Your task to perform on an android device: How much does a 2 bedroom apartment rent for in Houston? Image 0: 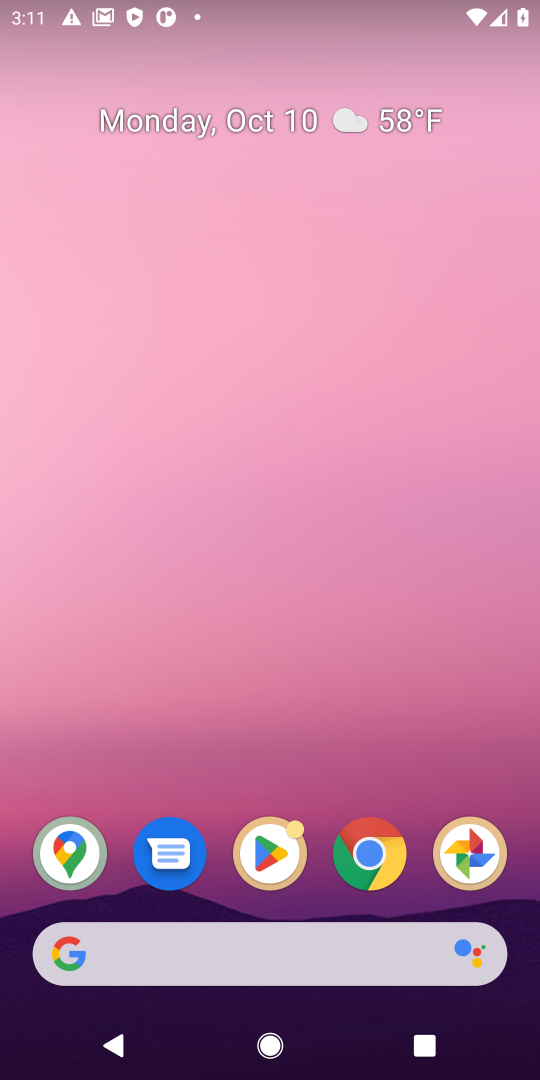
Step 0: click (260, 357)
Your task to perform on an android device: How much does a 2 bedroom apartment rent for in Houston? Image 1: 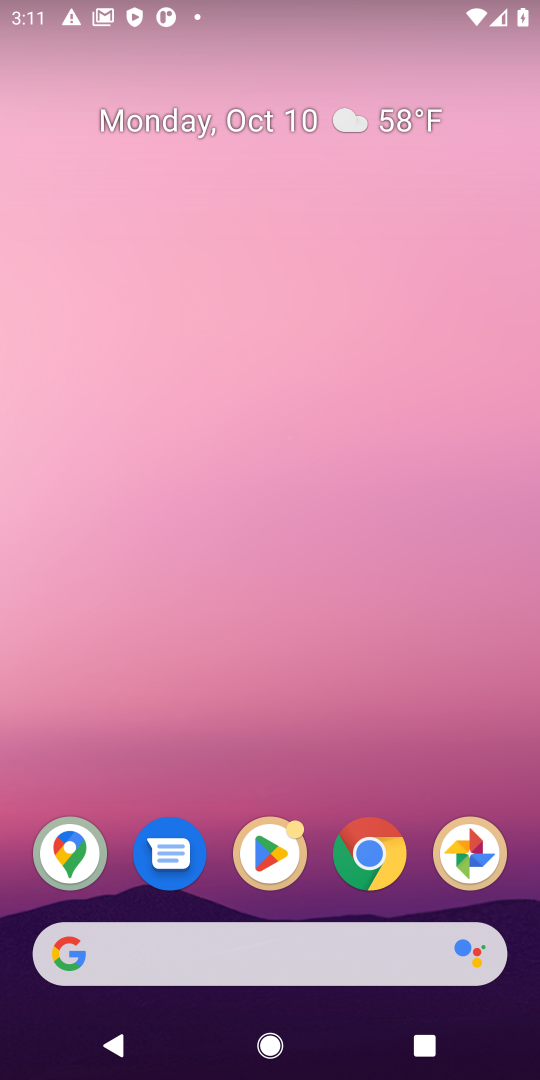
Step 1: click (352, 838)
Your task to perform on an android device: How much does a 2 bedroom apartment rent for in Houston? Image 2: 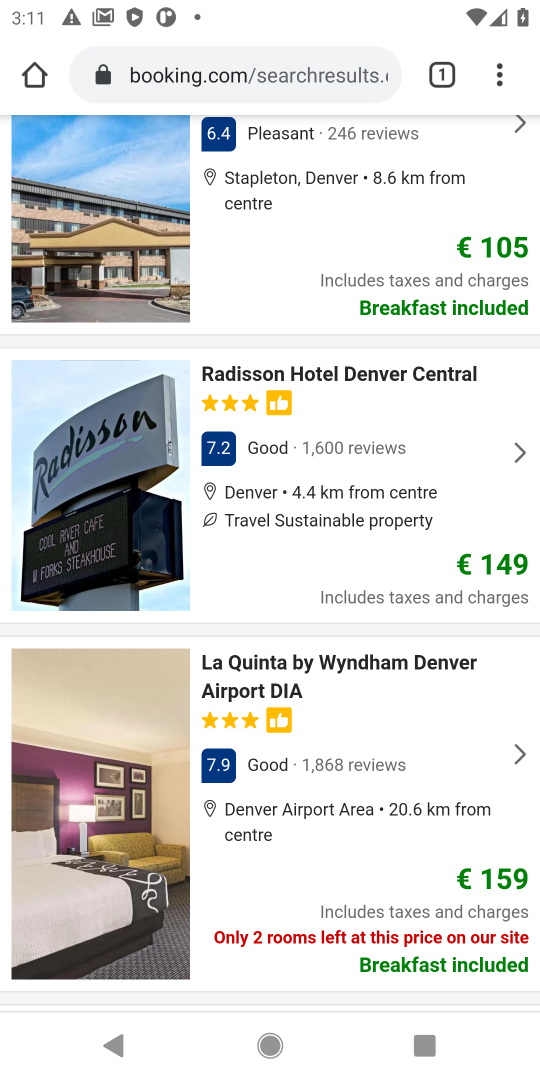
Step 2: click (231, 78)
Your task to perform on an android device: How much does a 2 bedroom apartment rent for in Houston? Image 3: 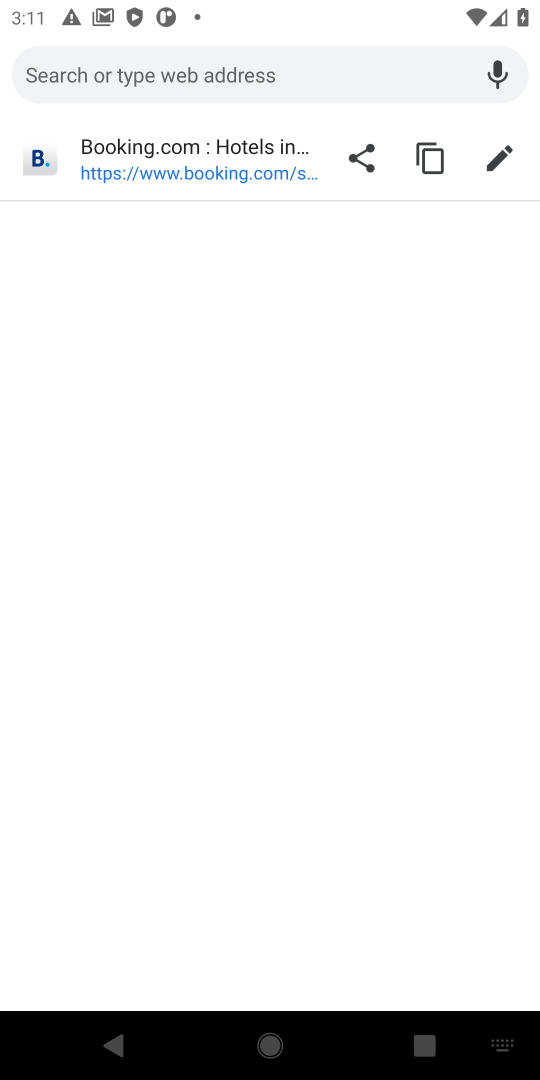
Step 3: type "How much does a 2 bedroom apartment rent for in Houston?"
Your task to perform on an android device: How much does a 2 bedroom apartment rent for in Houston? Image 4: 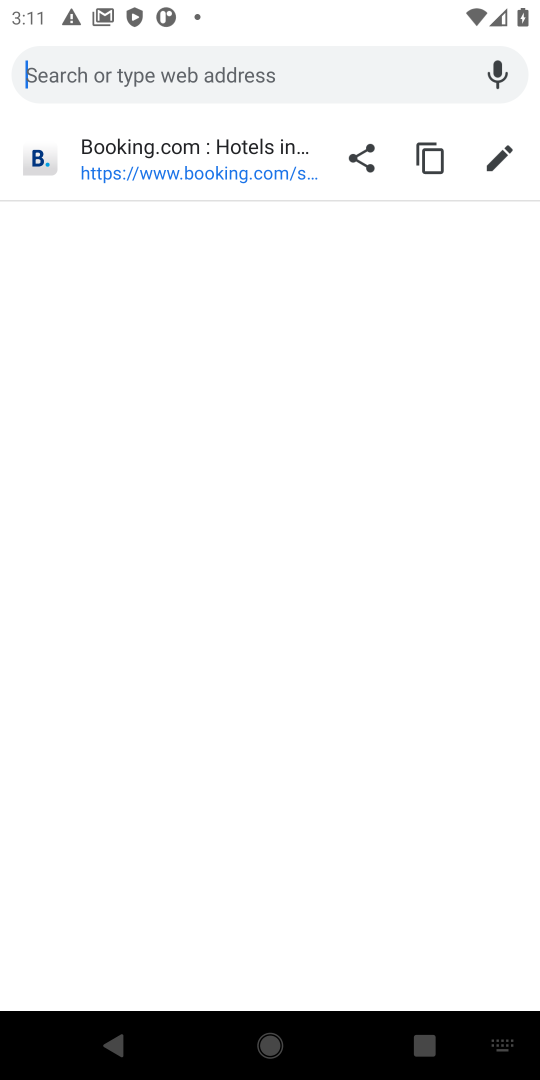
Step 4: click (409, 73)
Your task to perform on an android device: How much does a 2 bedroom apartment rent for in Houston? Image 5: 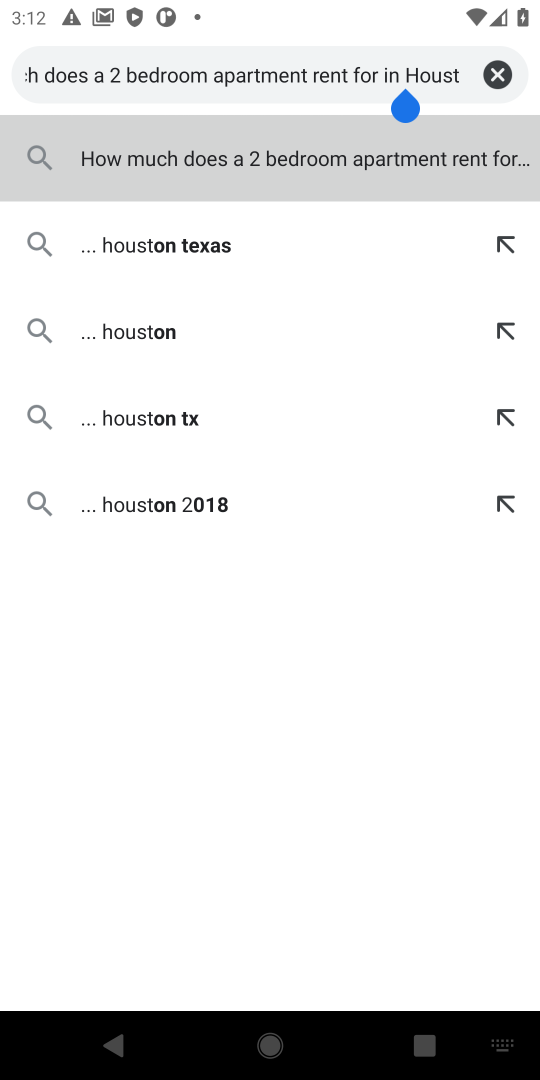
Step 5: click (308, 167)
Your task to perform on an android device: How much does a 2 bedroom apartment rent for in Houston? Image 6: 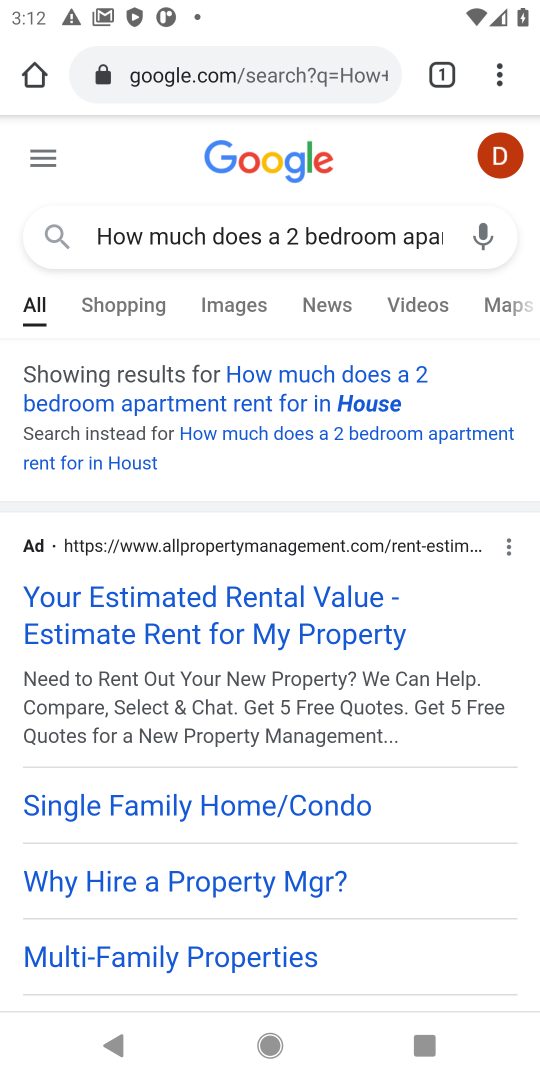
Step 6: task complete